Your task to perform on an android device: set an alarm Image 0: 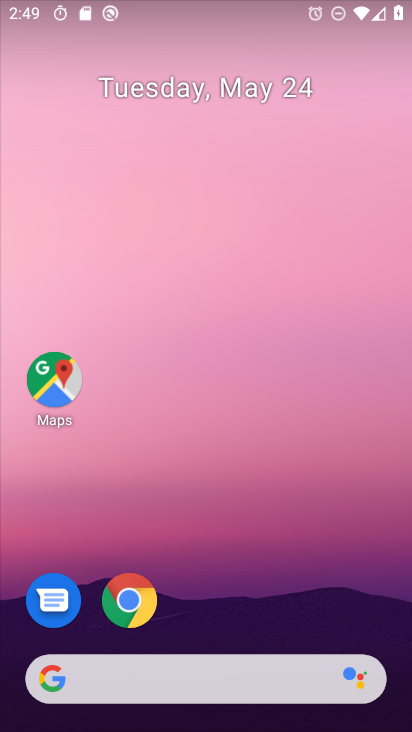
Step 0: drag from (251, 547) to (180, 125)
Your task to perform on an android device: set an alarm Image 1: 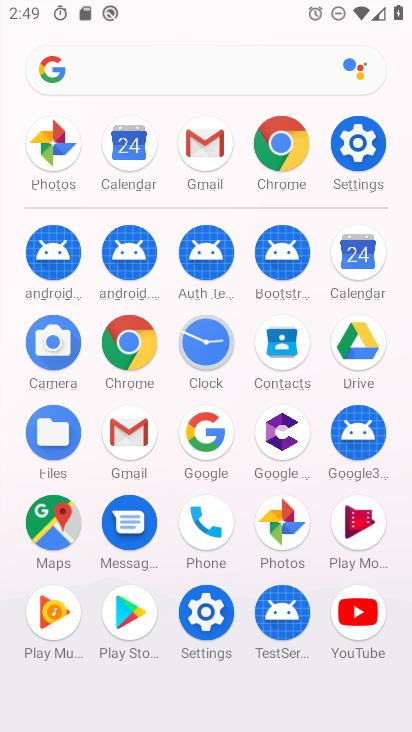
Step 1: click (209, 349)
Your task to perform on an android device: set an alarm Image 2: 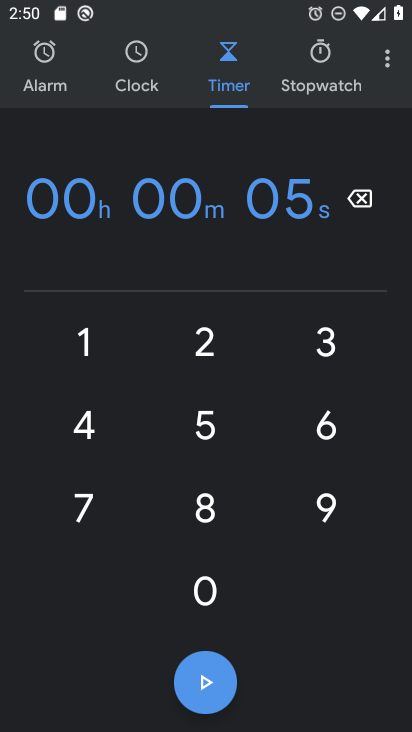
Step 2: click (58, 60)
Your task to perform on an android device: set an alarm Image 3: 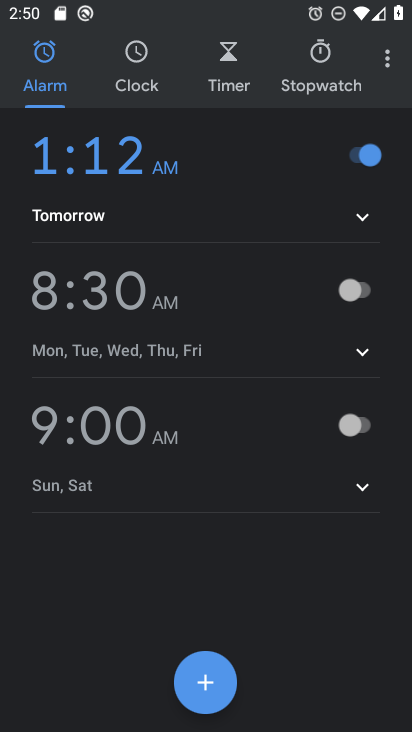
Step 3: click (217, 681)
Your task to perform on an android device: set an alarm Image 4: 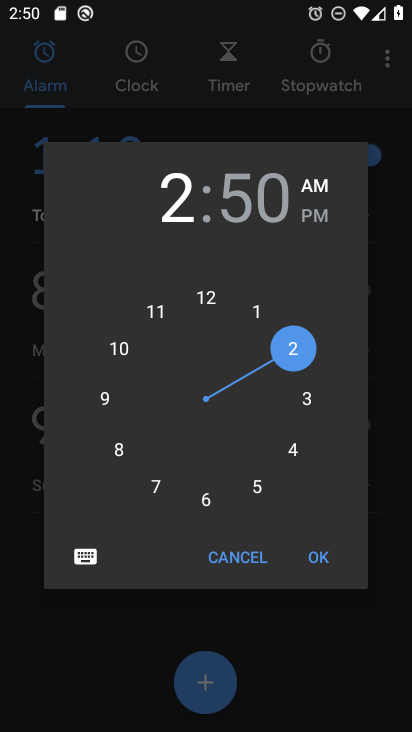
Step 4: click (334, 553)
Your task to perform on an android device: set an alarm Image 5: 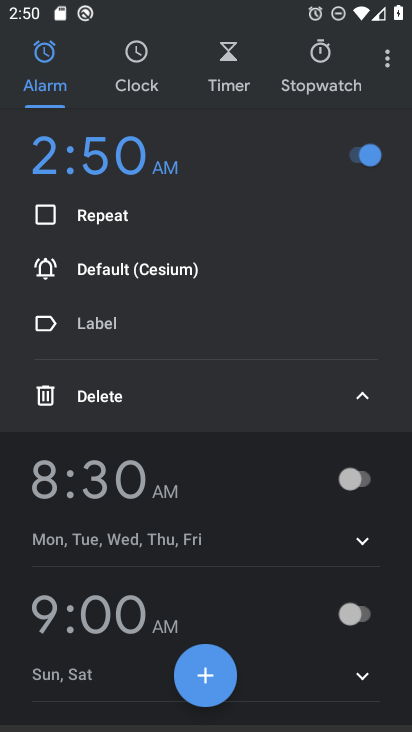
Step 5: task complete